Your task to perform on an android device: turn off notifications settings in the gmail app Image 0: 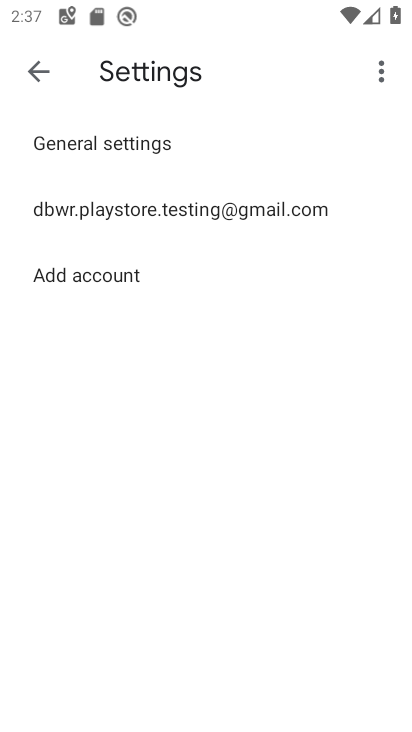
Step 0: press home button
Your task to perform on an android device: turn off notifications settings in the gmail app Image 1: 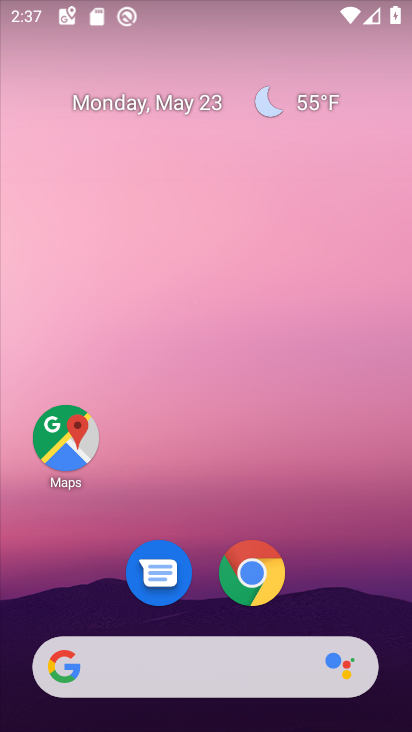
Step 1: drag from (323, 614) to (312, 69)
Your task to perform on an android device: turn off notifications settings in the gmail app Image 2: 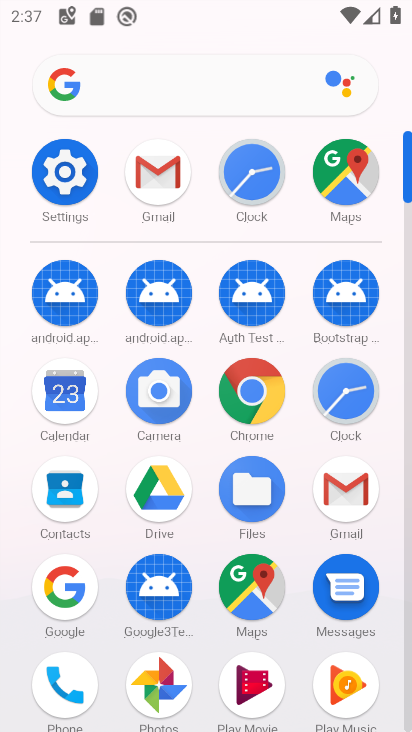
Step 2: click (155, 175)
Your task to perform on an android device: turn off notifications settings in the gmail app Image 3: 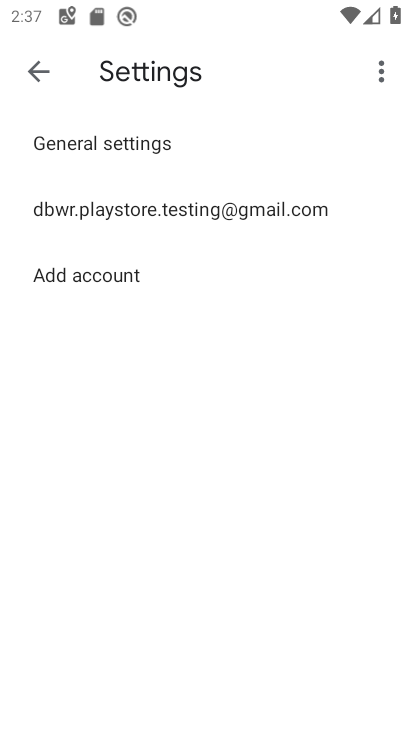
Step 3: click (76, 146)
Your task to perform on an android device: turn off notifications settings in the gmail app Image 4: 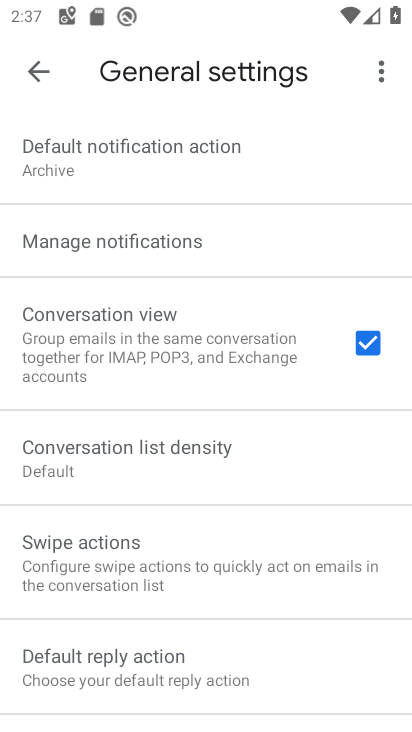
Step 4: click (133, 241)
Your task to perform on an android device: turn off notifications settings in the gmail app Image 5: 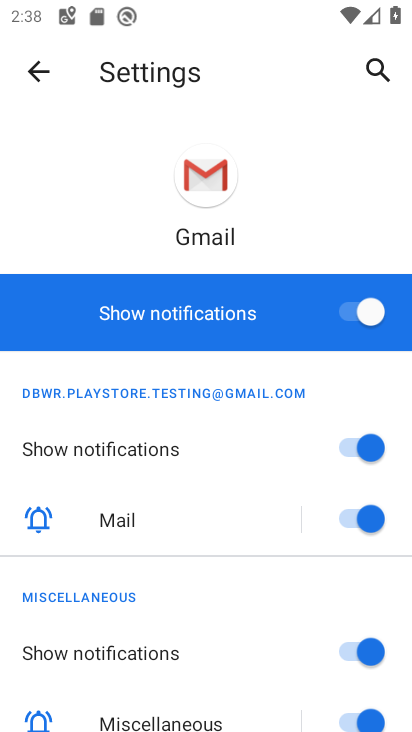
Step 5: click (358, 308)
Your task to perform on an android device: turn off notifications settings in the gmail app Image 6: 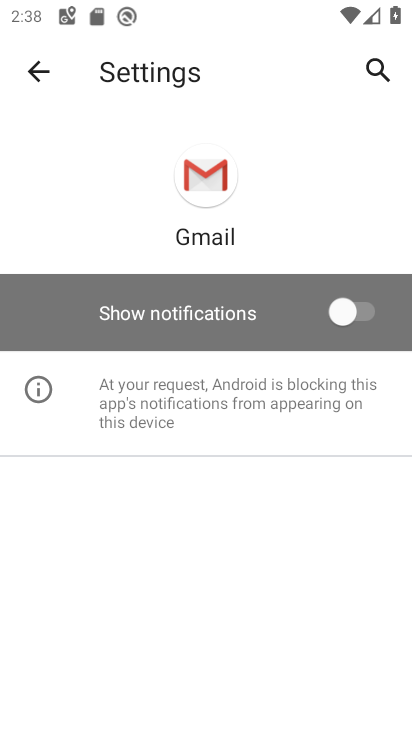
Step 6: task complete